Your task to perform on an android device: Open the calendar and show me this week's events? Image 0: 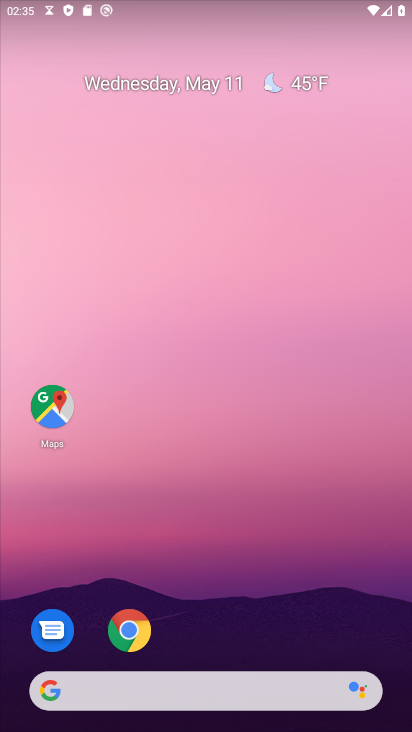
Step 0: drag from (226, 727) to (229, 37)
Your task to perform on an android device: Open the calendar and show me this week's events? Image 1: 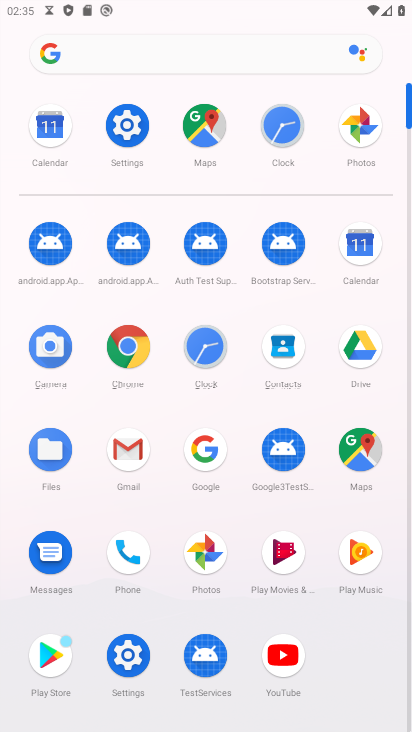
Step 1: click (363, 244)
Your task to perform on an android device: Open the calendar and show me this week's events? Image 2: 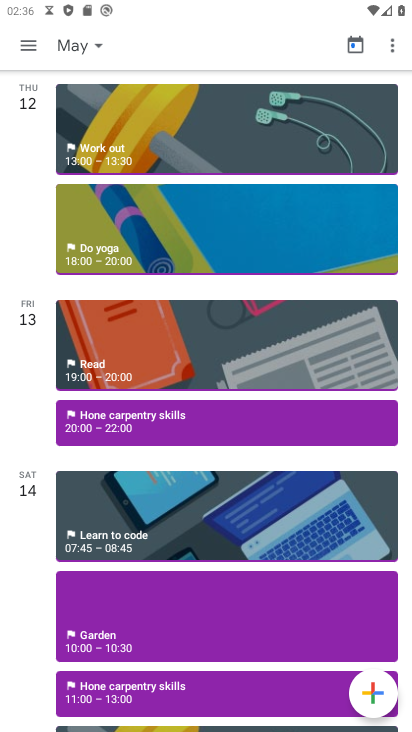
Step 2: click (29, 40)
Your task to perform on an android device: Open the calendar and show me this week's events? Image 3: 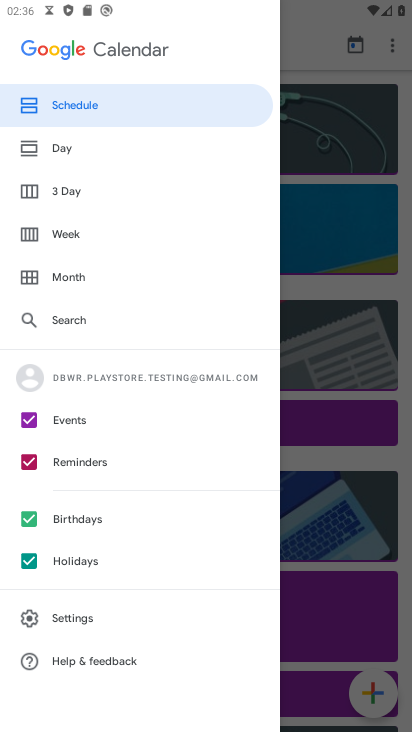
Step 3: click (67, 233)
Your task to perform on an android device: Open the calendar and show me this week's events? Image 4: 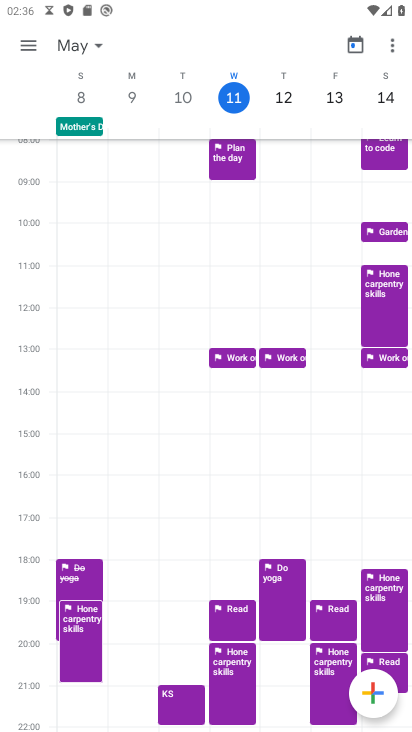
Step 4: task complete